Your task to perform on an android device: check google app version Image 0: 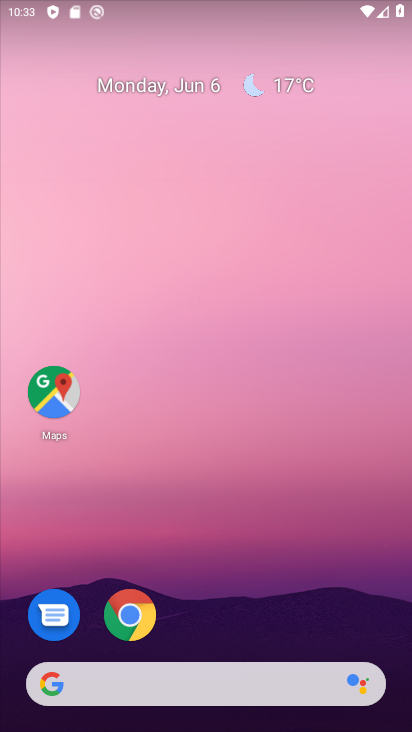
Step 0: drag from (184, 541) to (85, 200)
Your task to perform on an android device: check google app version Image 1: 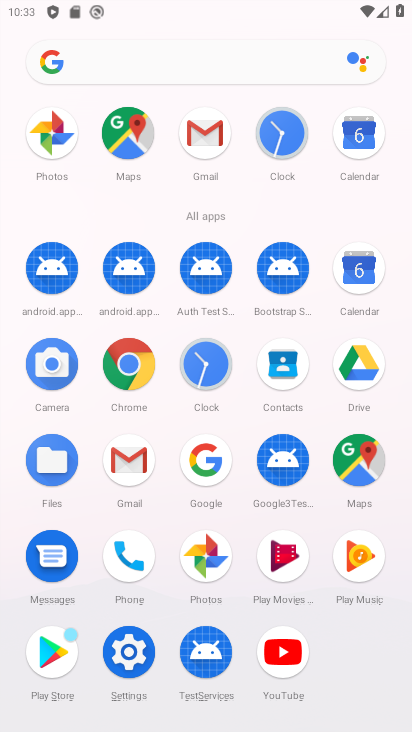
Step 1: click (198, 464)
Your task to perform on an android device: check google app version Image 2: 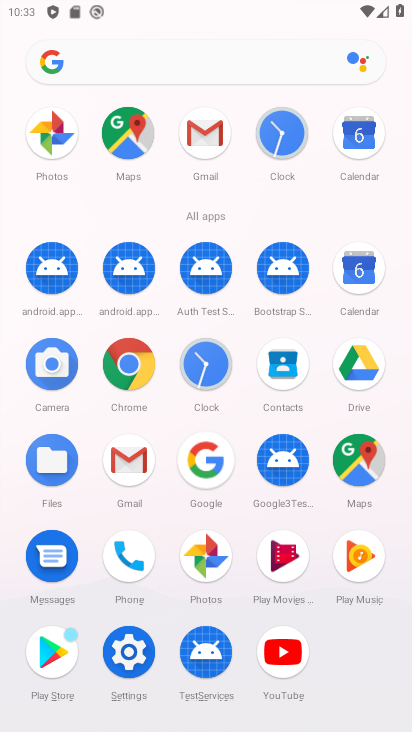
Step 2: click (205, 462)
Your task to perform on an android device: check google app version Image 3: 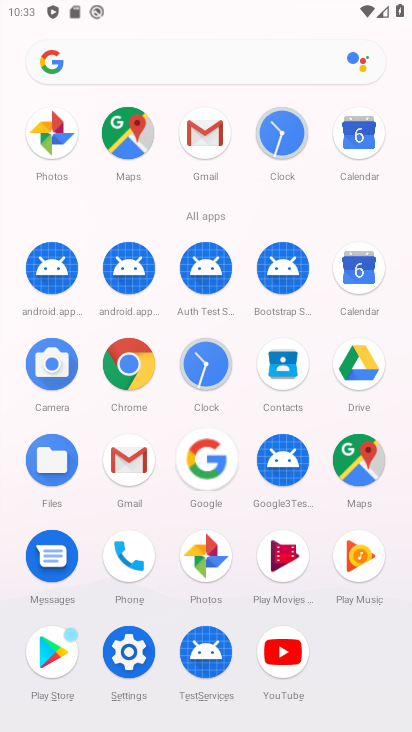
Step 3: click (206, 460)
Your task to perform on an android device: check google app version Image 4: 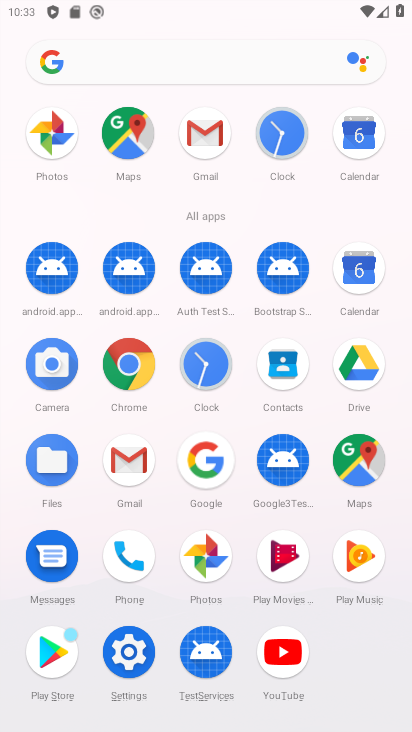
Step 4: click (207, 459)
Your task to perform on an android device: check google app version Image 5: 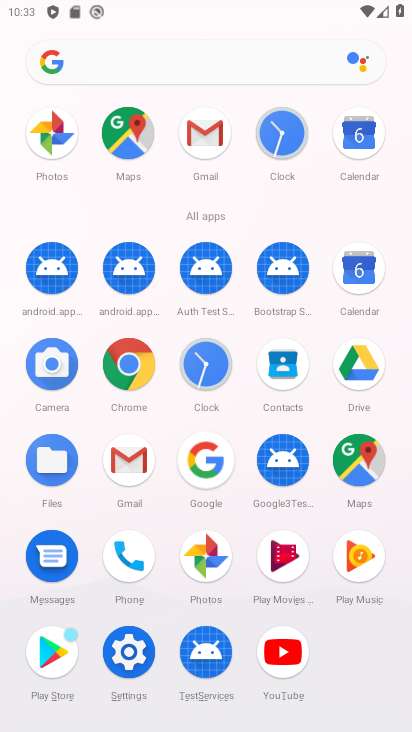
Step 5: click (210, 458)
Your task to perform on an android device: check google app version Image 6: 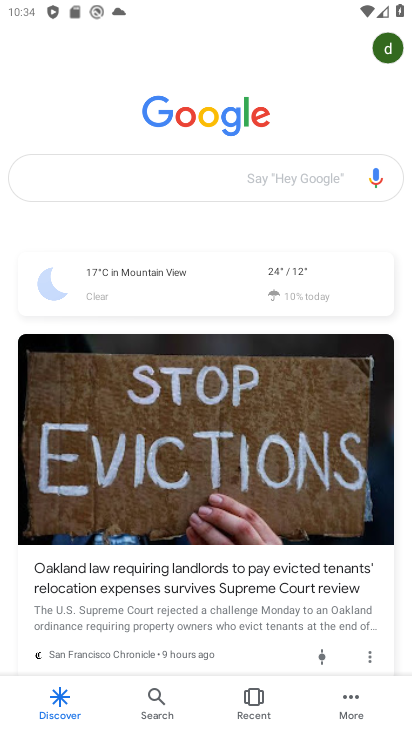
Step 6: drag from (157, 378) to (170, 213)
Your task to perform on an android device: check google app version Image 7: 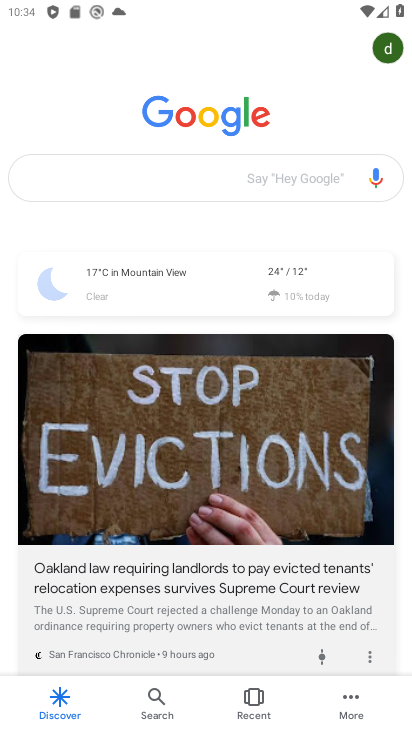
Step 7: drag from (193, 402) to (192, 216)
Your task to perform on an android device: check google app version Image 8: 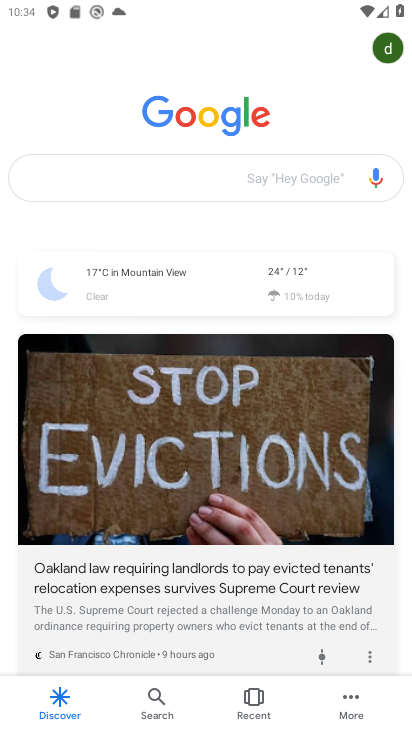
Step 8: drag from (145, 435) to (145, 244)
Your task to perform on an android device: check google app version Image 9: 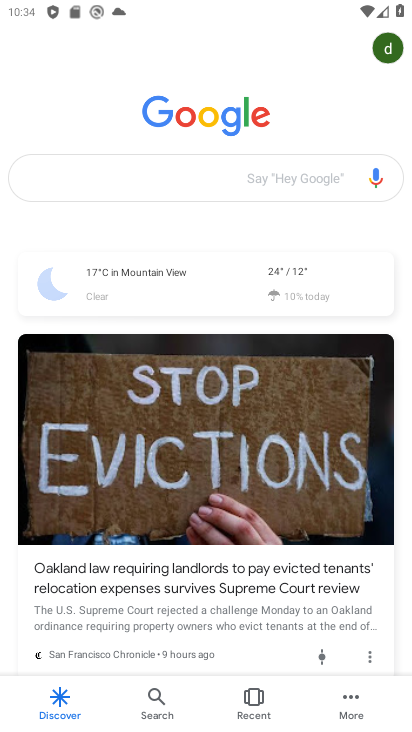
Step 9: drag from (217, 489) to (217, 300)
Your task to perform on an android device: check google app version Image 10: 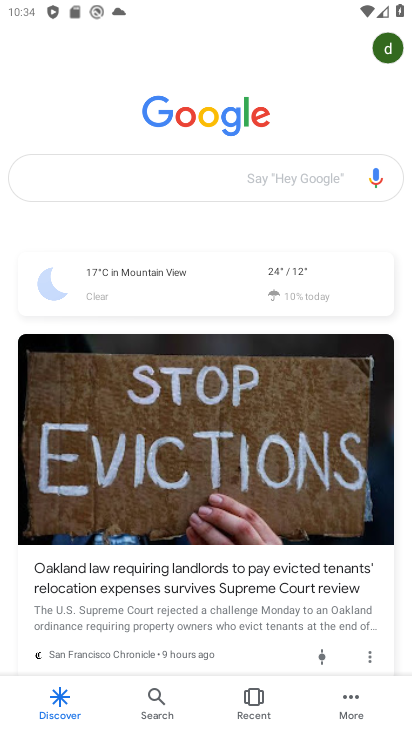
Step 10: drag from (217, 540) to (217, 338)
Your task to perform on an android device: check google app version Image 11: 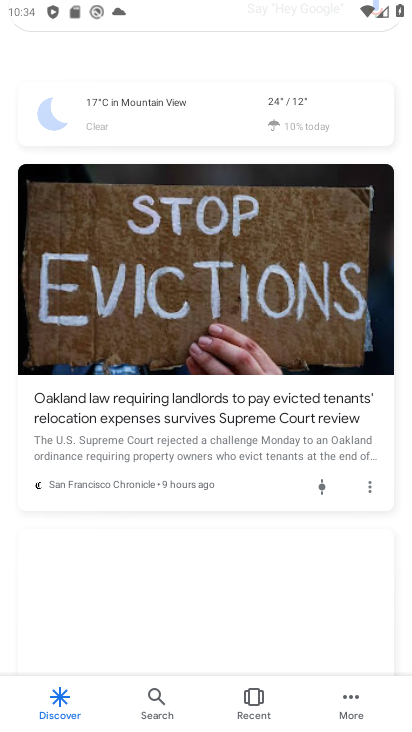
Step 11: drag from (220, 549) to (210, 335)
Your task to perform on an android device: check google app version Image 12: 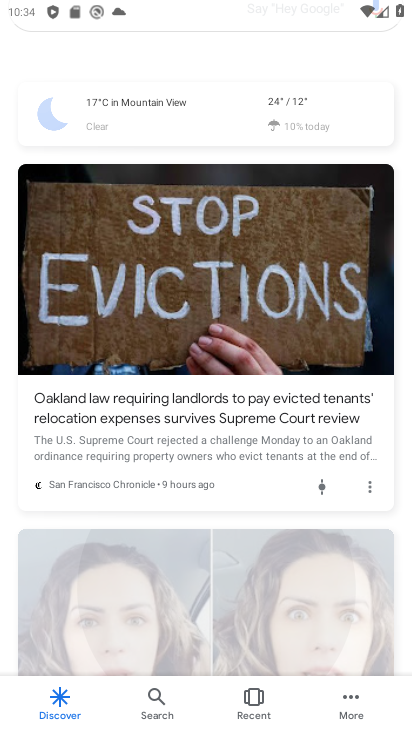
Step 12: drag from (170, 459) to (170, 282)
Your task to perform on an android device: check google app version Image 13: 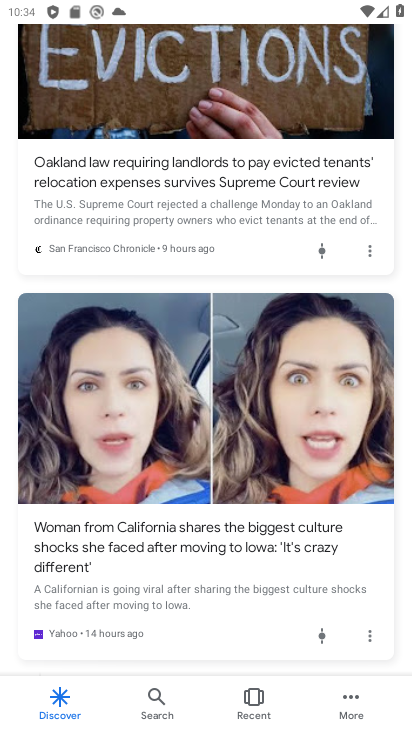
Step 13: drag from (200, 497) to (200, 261)
Your task to perform on an android device: check google app version Image 14: 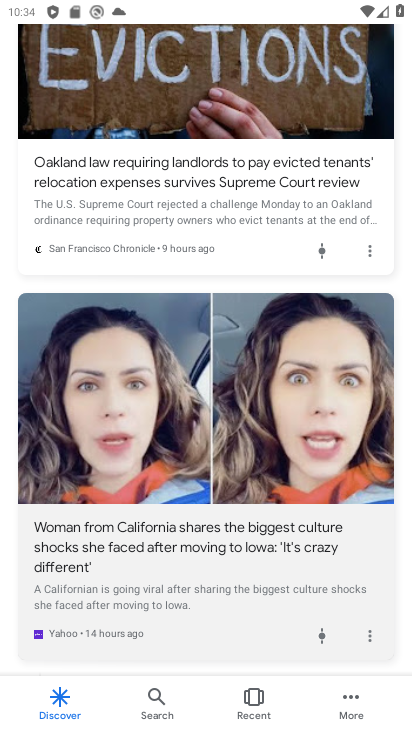
Step 14: click (214, 174)
Your task to perform on an android device: check google app version Image 15: 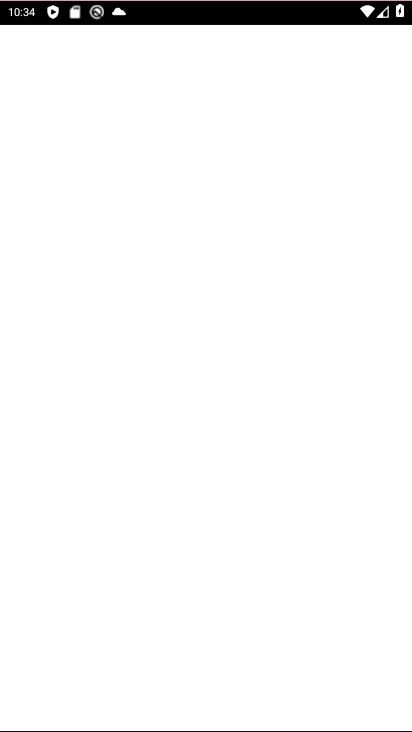
Step 15: drag from (224, 541) to (239, 94)
Your task to perform on an android device: check google app version Image 16: 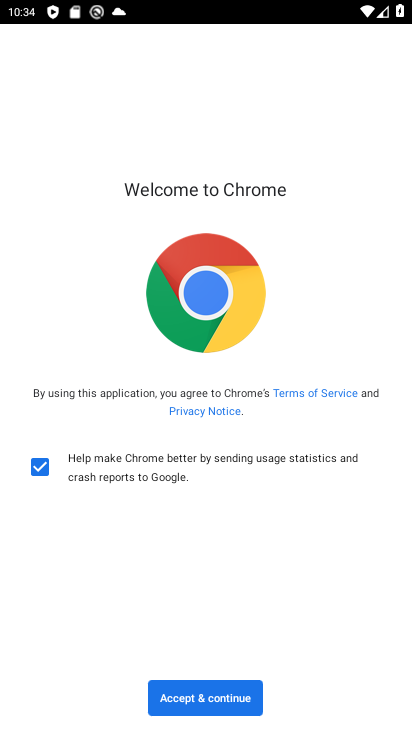
Step 16: press back button
Your task to perform on an android device: check google app version Image 17: 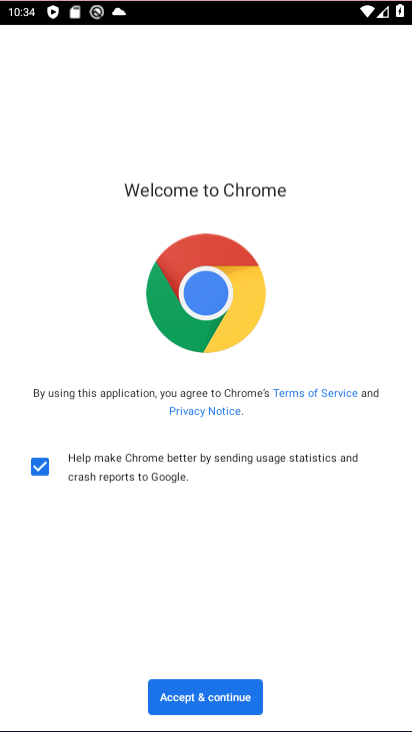
Step 17: press back button
Your task to perform on an android device: check google app version Image 18: 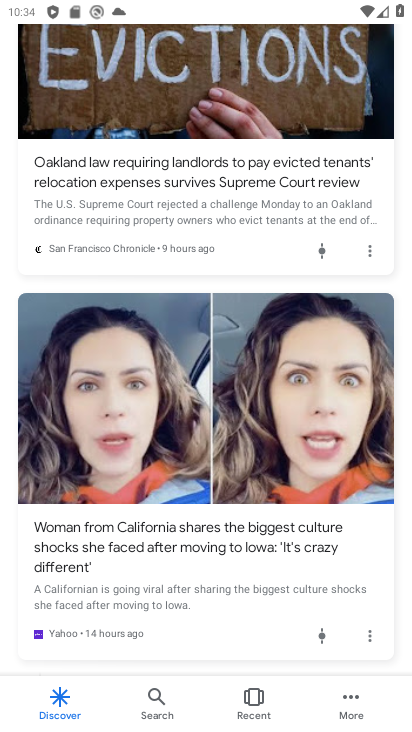
Step 18: press back button
Your task to perform on an android device: check google app version Image 19: 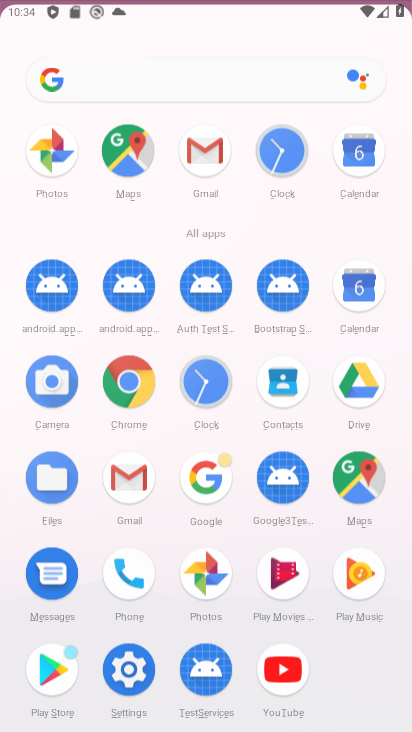
Step 19: press home button
Your task to perform on an android device: check google app version Image 20: 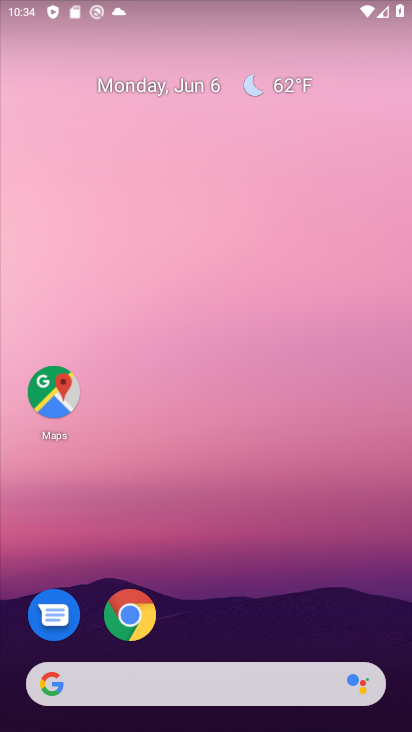
Step 20: drag from (199, 472) to (67, 6)
Your task to perform on an android device: check google app version Image 21: 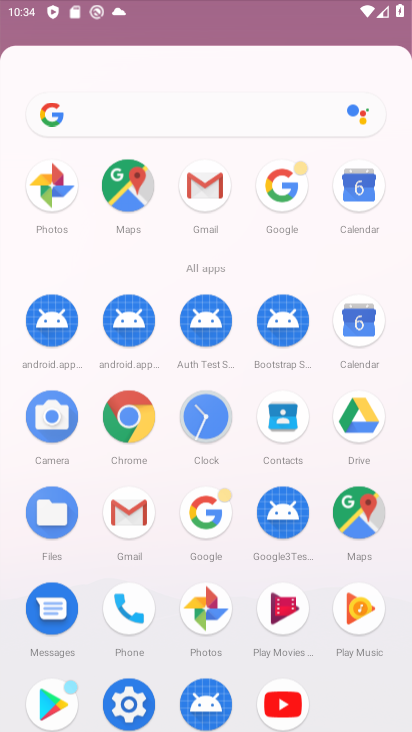
Step 21: drag from (260, 526) to (182, 48)
Your task to perform on an android device: check google app version Image 22: 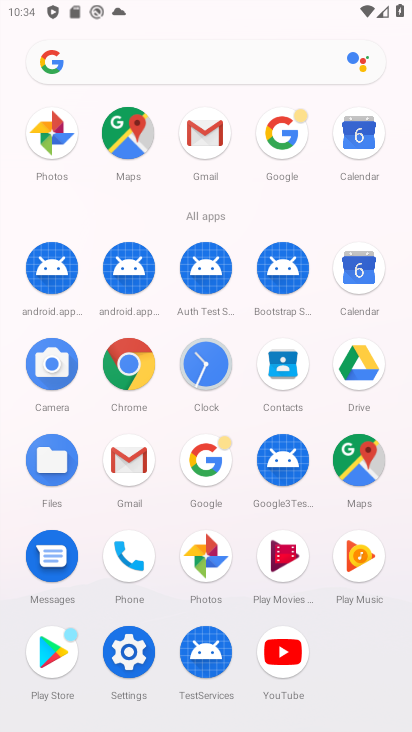
Step 22: click (204, 455)
Your task to perform on an android device: check google app version Image 23: 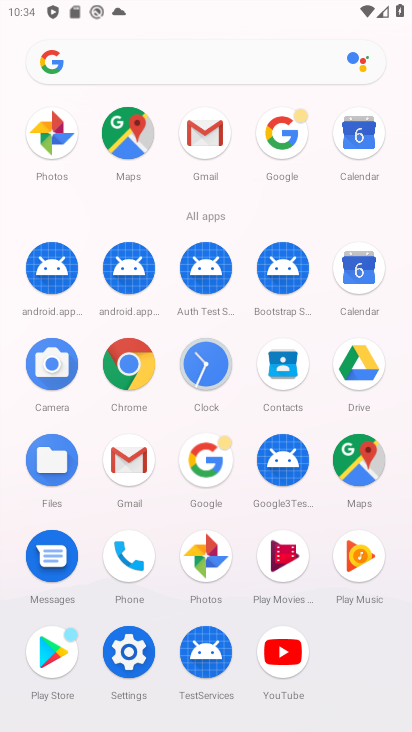
Step 23: click (204, 456)
Your task to perform on an android device: check google app version Image 24: 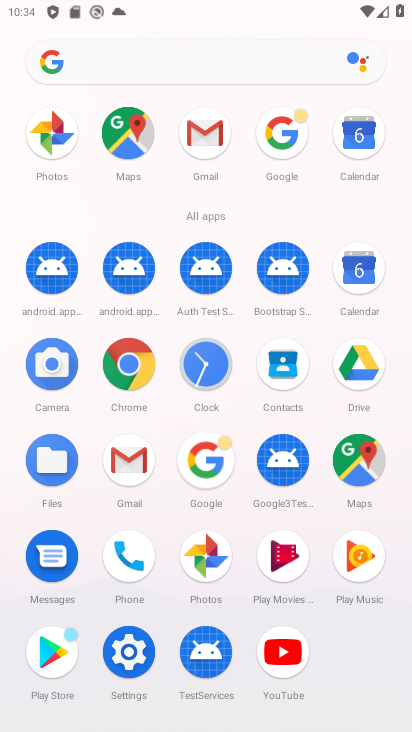
Step 24: click (204, 456)
Your task to perform on an android device: check google app version Image 25: 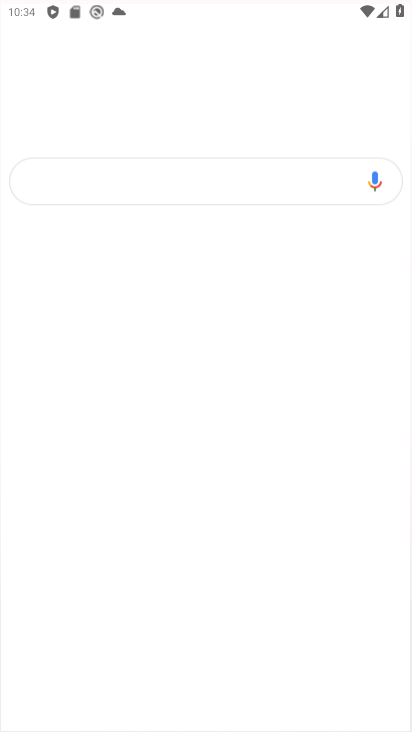
Step 25: click (206, 457)
Your task to perform on an android device: check google app version Image 26: 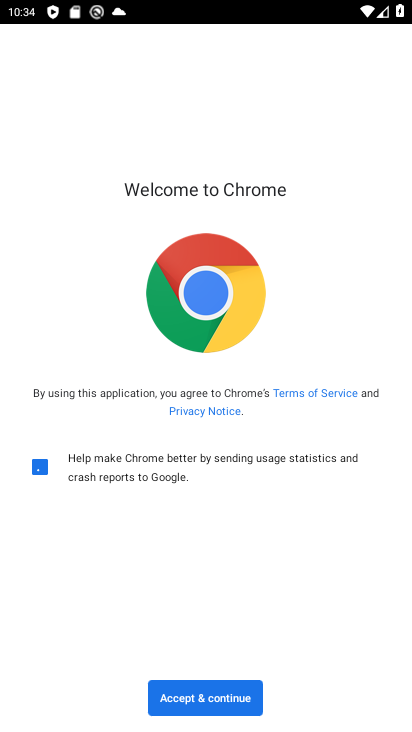
Step 26: drag from (212, 440) to (198, 244)
Your task to perform on an android device: check google app version Image 27: 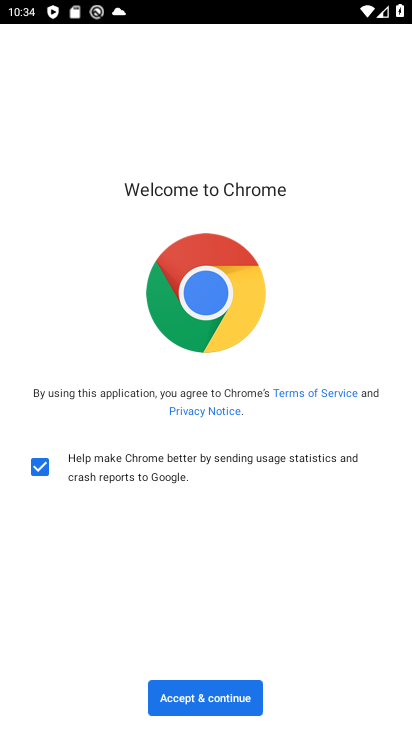
Step 27: click (189, 697)
Your task to perform on an android device: check google app version Image 28: 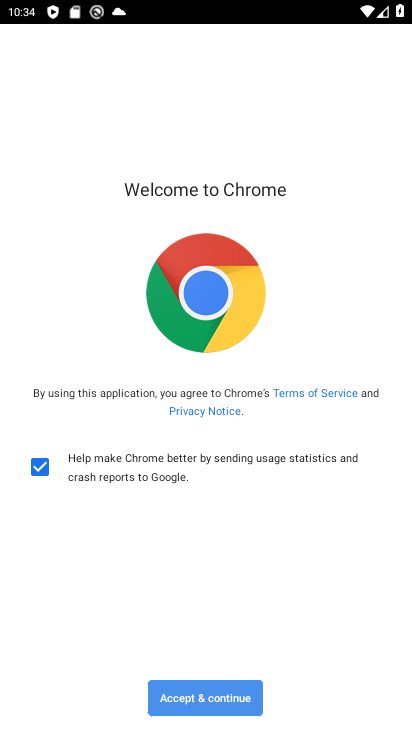
Step 28: click (189, 697)
Your task to perform on an android device: check google app version Image 29: 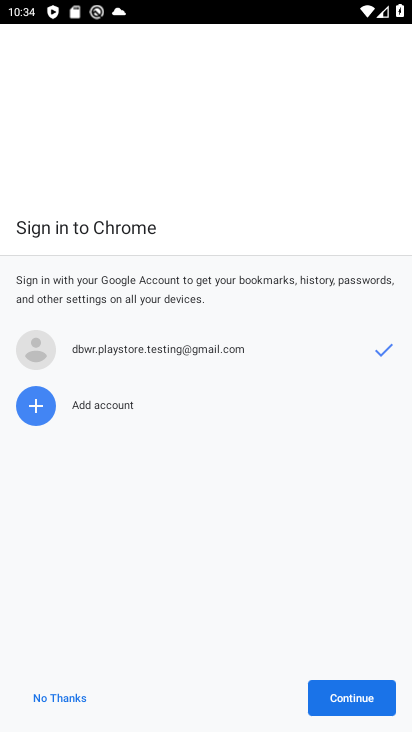
Step 29: click (189, 697)
Your task to perform on an android device: check google app version Image 30: 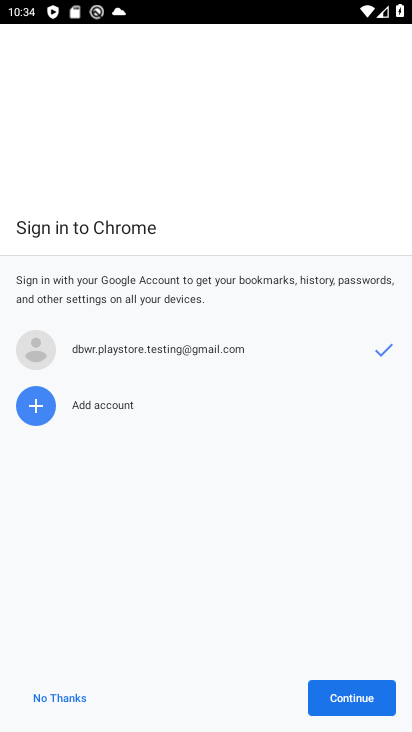
Step 30: click (189, 697)
Your task to perform on an android device: check google app version Image 31: 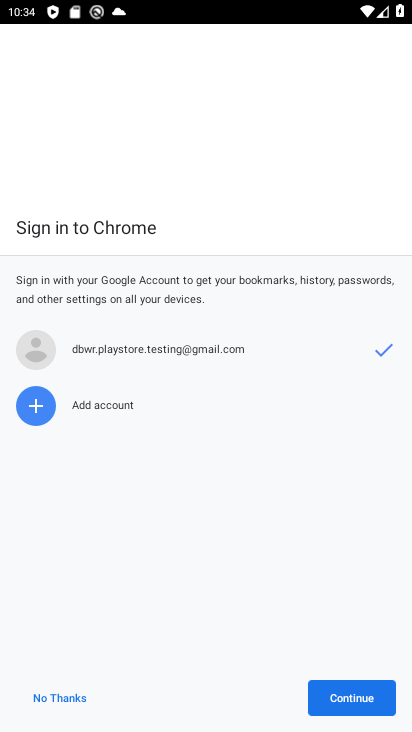
Step 31: click (363, 704)
Your task to perform on an android device: check google app version Image 32: 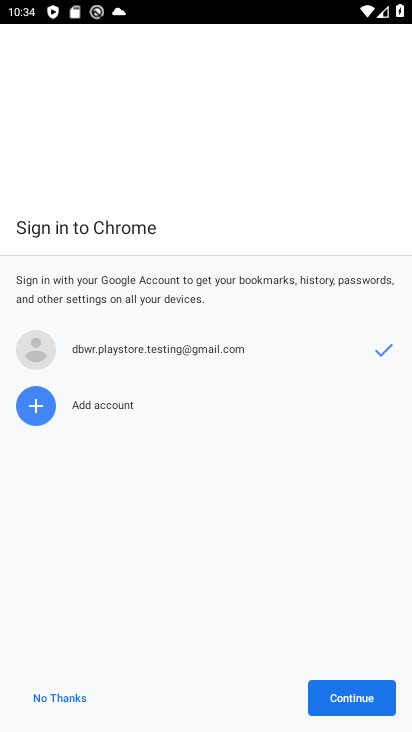
Step 32: click (363, 704)
Your task to perform on an android device: check google app version Image 33: 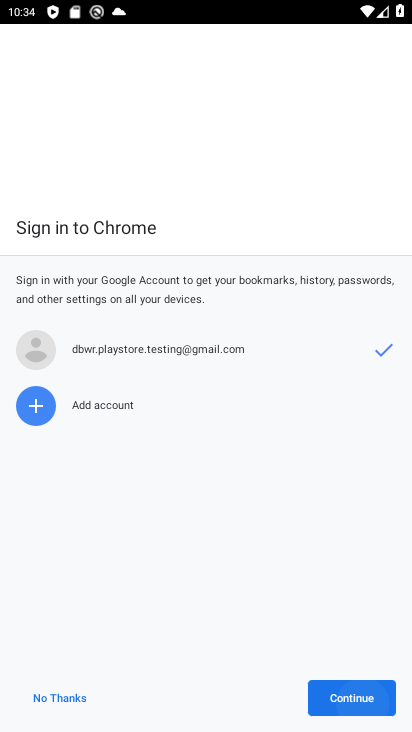
Step 33: click (362, 704)
Your task to perform on an android device: check google app version Image 34: 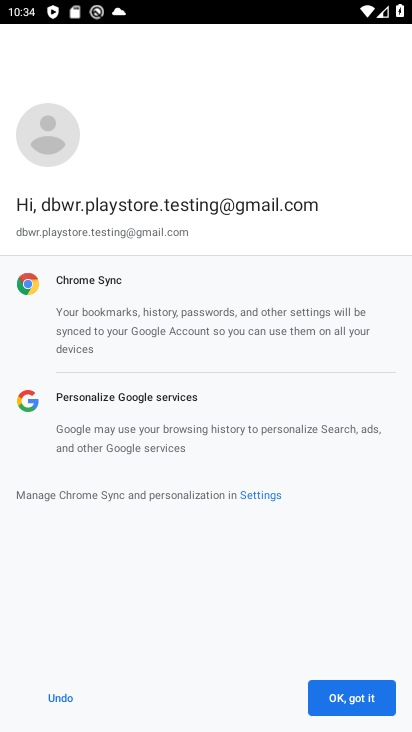
Step 34: click (362, 704)
Your task to perform on an android device: check google app version Image 35: 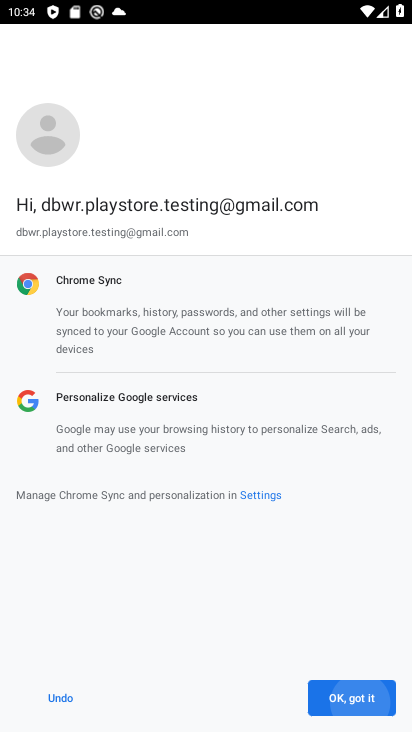
Step 35: click (361, 703)
Your task to perform on an android device: check google app version Image 36: 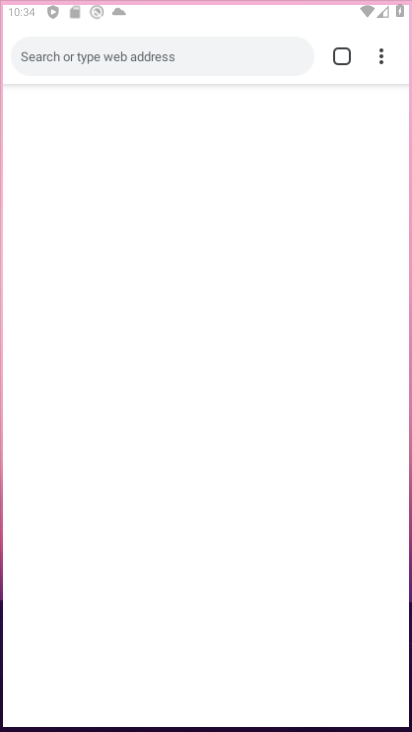
Step 36: click (361, 701)
Your task to perform on an android device: check google app version Image 37: 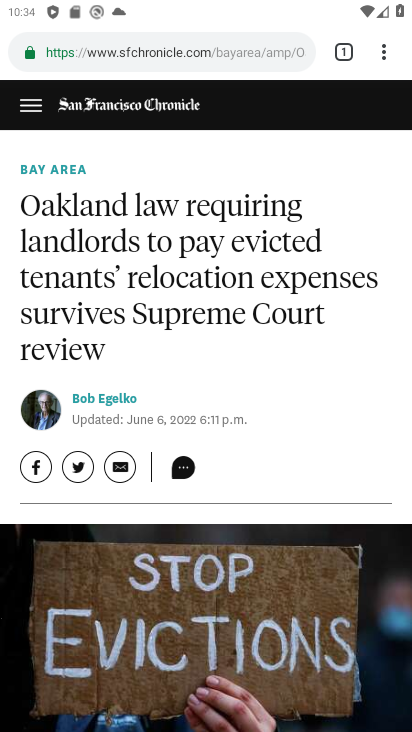
Step 37: task complete